Your task to perform on an android device: open chrome and create a bookmark for the current page Image 0: 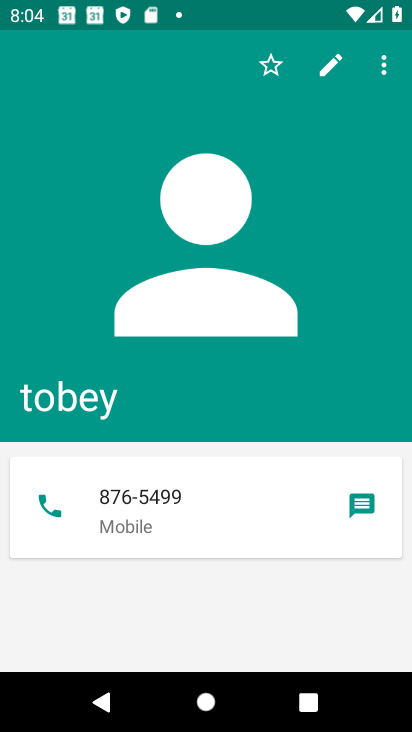
Step 0: press home button
Your task to perform on an android device: open chrome and create a bookmark for the current page Image 1: 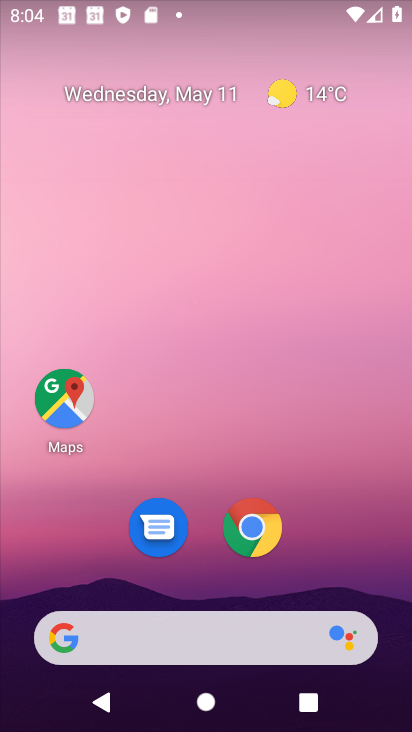
Step 1: click (255, 529)
Your task to perform on an android device: open chrome and create a bookmark for the current page Image 2: 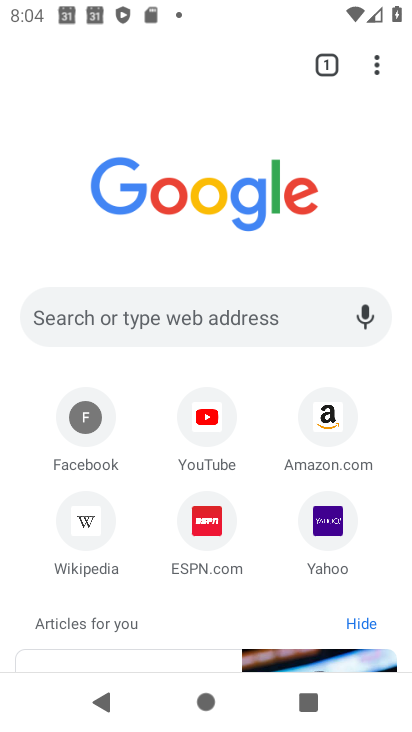
Step 2: click (372, 54)
Your task to perform on an android device: open chrome and create a bookmark for the current page Image 3: 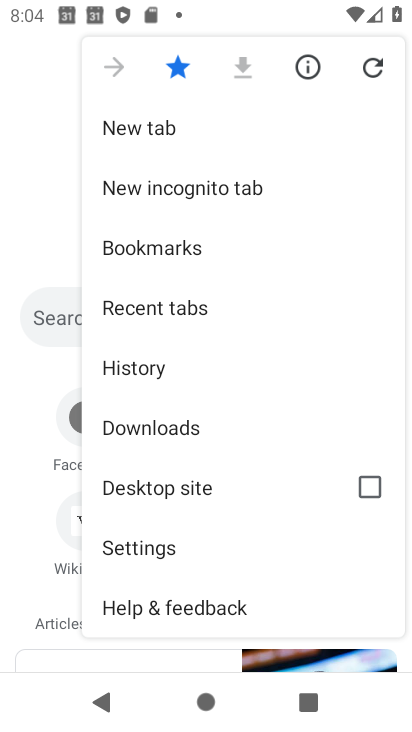
Step 3: click (31, 174)
Your task to perform on an android device: open chrome and create a bookmark for the current page Image 4: 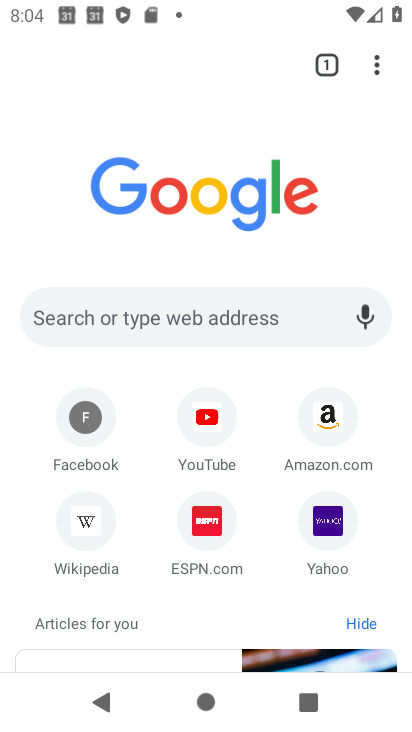
Step 4: click (186, 316)
Your task to perform on an android device: open chrome and create a bookmark for the current page Image 5: 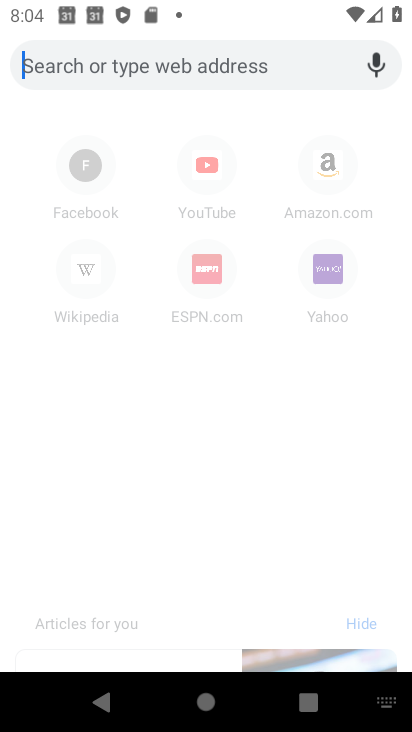
Step 5: type "coffee"
Your task to perform on an android device: open chrome and create a bookmark for the current page Image 6: 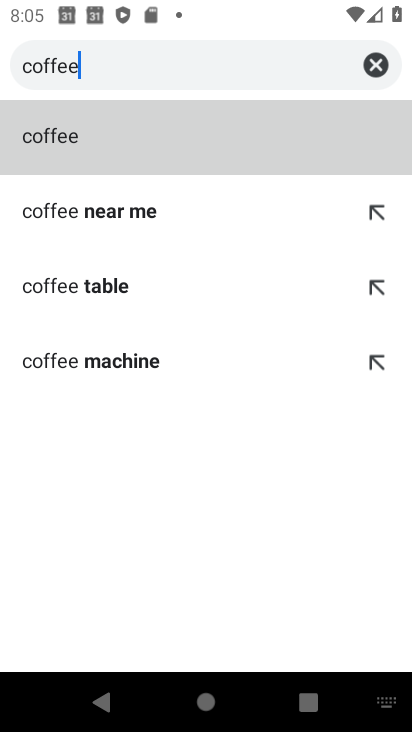
Step 6: click (79, 128)
Your task to perform on an android device: open chrome and create a bookmark for the current page Image 7: 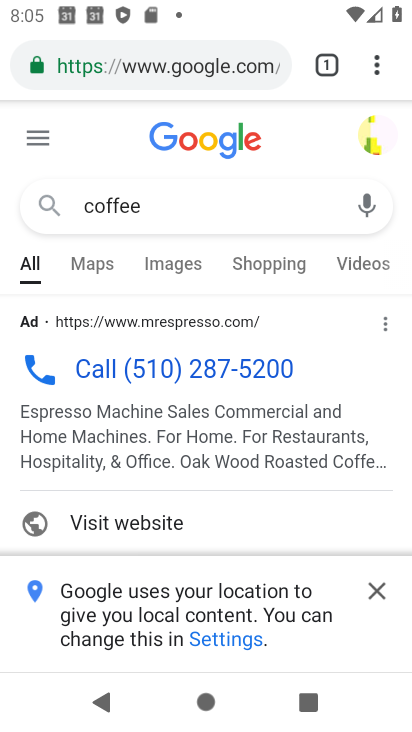
Step 7: drag from (147, 451) to (216, 43)
Your task to perform on an android device: open chrome and create a bookmark for the current page Image 8: 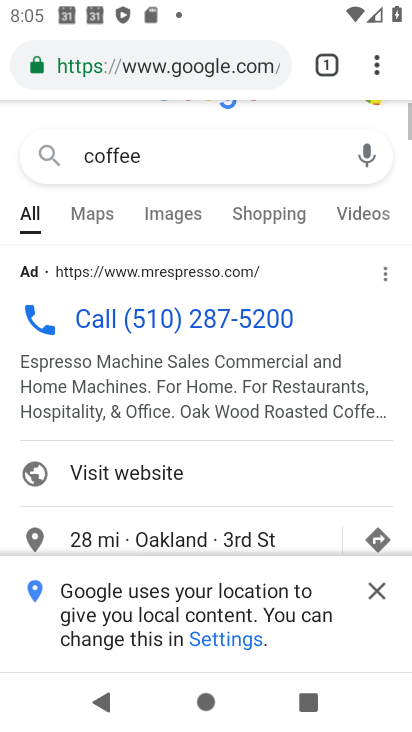
Step 8: drag from (146, 514) to (197, 222)
Your task to perform on an android device: open chrome and create a bookmark for the current page Image 9: 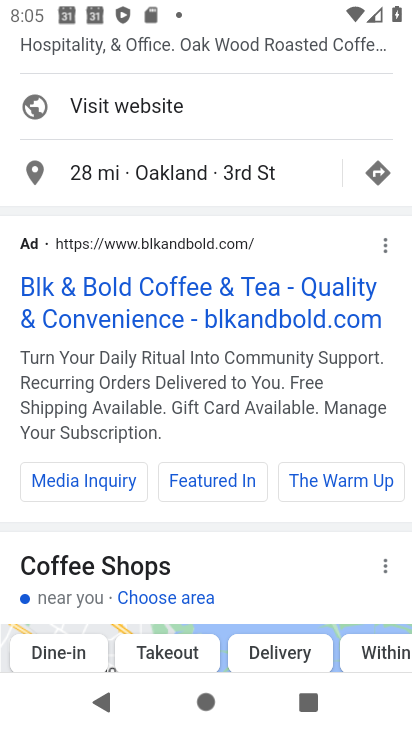
Step 9: click (173, 278)
Your task to perform on an android device: open chrome and create a bookmark for the current page Image 10: 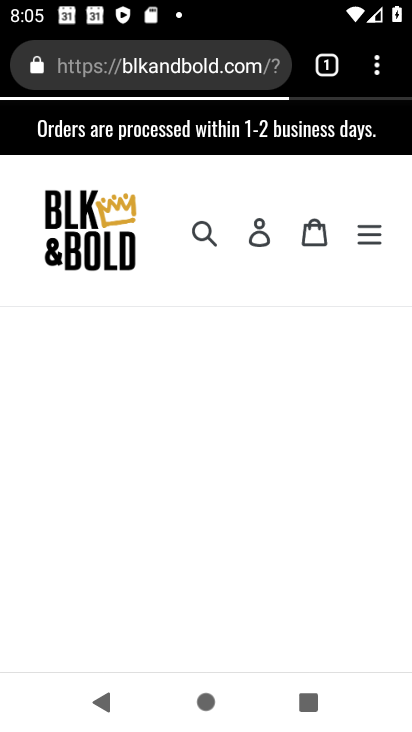
Step 10: click (385, 66)
Your task to perform on an android device: open chrome and create a bookmark for the current page Image 11: 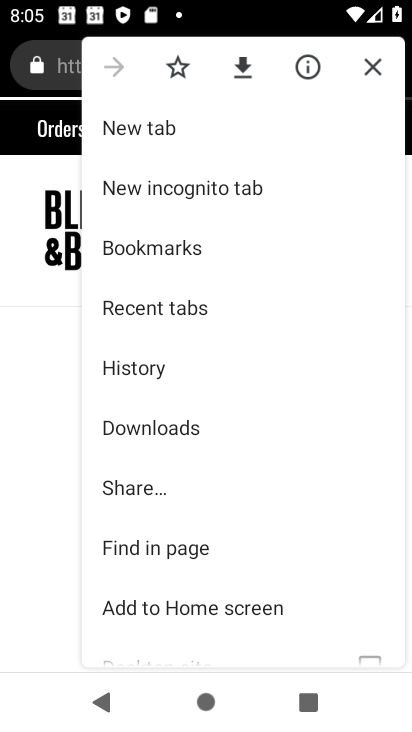
Step 11: click (181, 69)
Your task to perform on an android device: open chrome and create a bookmark for the current page Image 12: 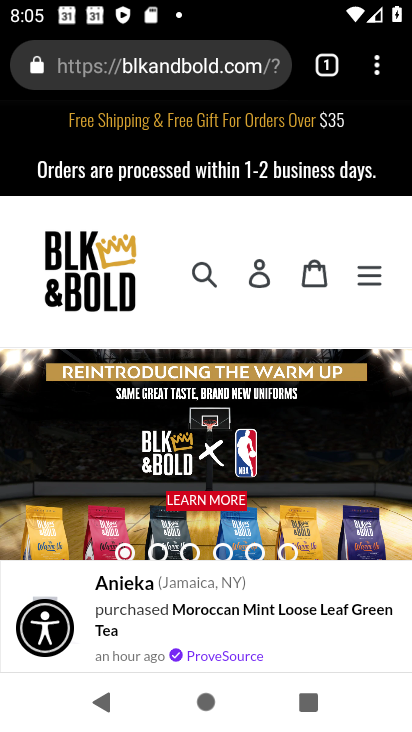
Step 12: task complete